Your task to perform on an android device: add a contact in the contacts app Image 0: 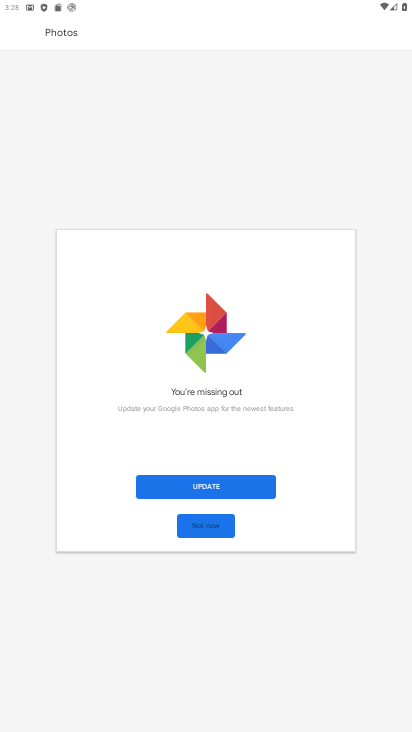
Step 0: press home button
Your task to perform on an android device: add a contact in the contacts app Image 1: 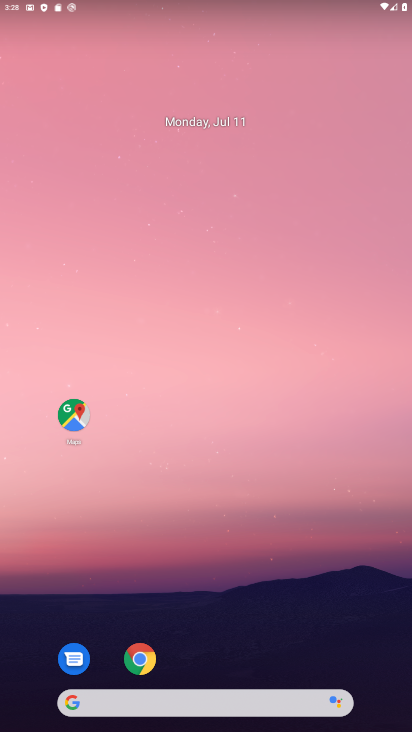
Step 1: drag from (209, 596) to (197, 60)
Your task to perform on an android device: add a contact in the contacts app Image 2: 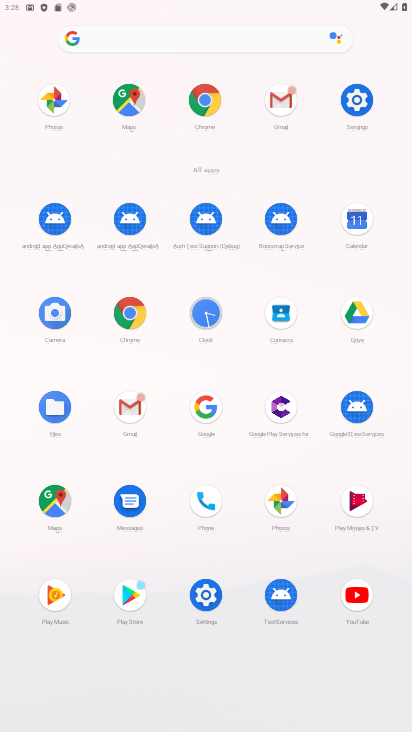
Step 2: click (275, 320)
Your task to perform on an android device: add a contact in the contacts app Image 3: 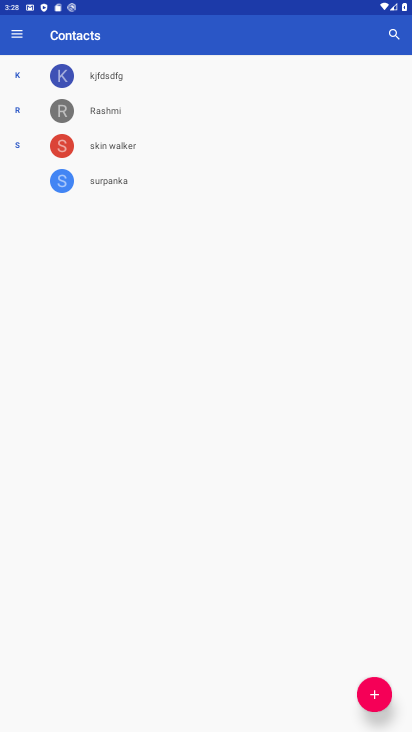
Step 3: click (370, 688)
Your task to perform on an android device: add a contact in the contacts app Image 4: 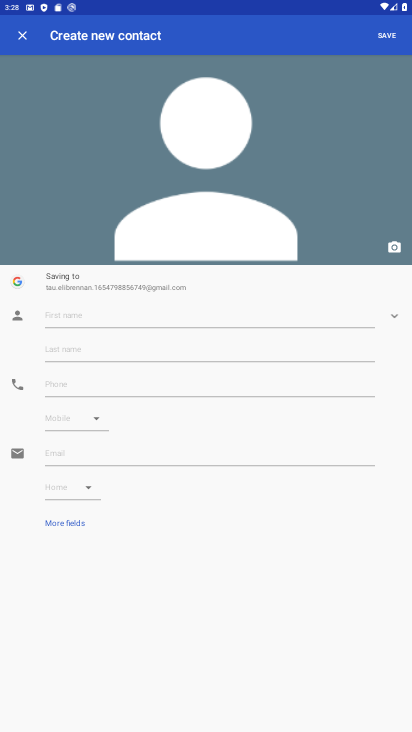
Step 4: click (185, 314)
Your task to perform on an android device: add a contact in the contacts app Image 5: 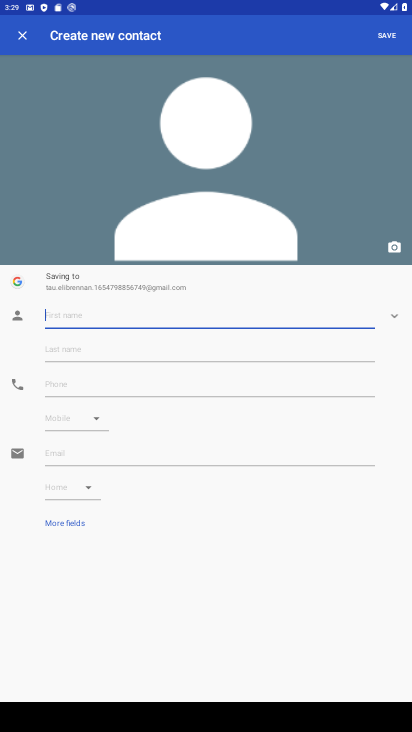
Step 5: type "Raghav"
Your task to perform on an android device: add a contact in the contacts app Image 6: 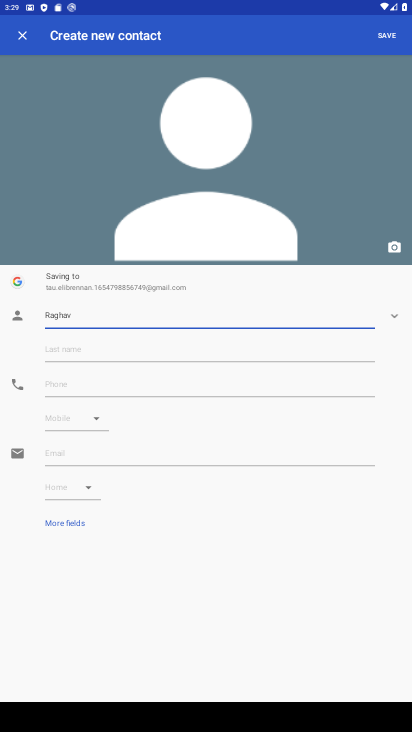
Step 6: click (116, 387)
Your task to perform on an android device: add a contact in the contacts app Image 7: 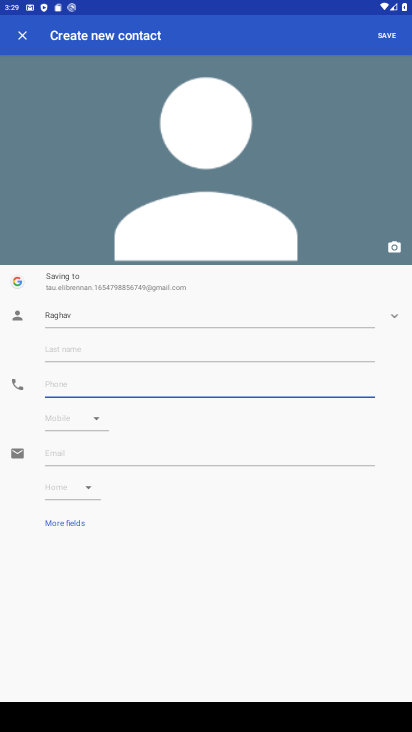
Step 7: type "9009900900"
Your task to perform on an android device: add a contact in the contacts app Image 8: 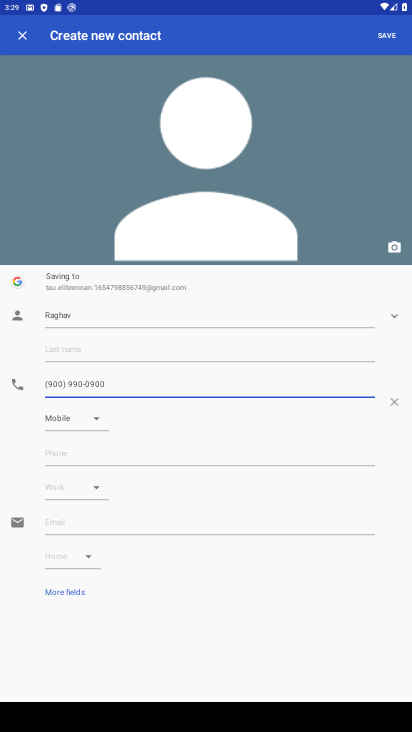
Step 8: click (396, 37)
Your task to perform on an android device: add a contact in the contacts app Image 9: 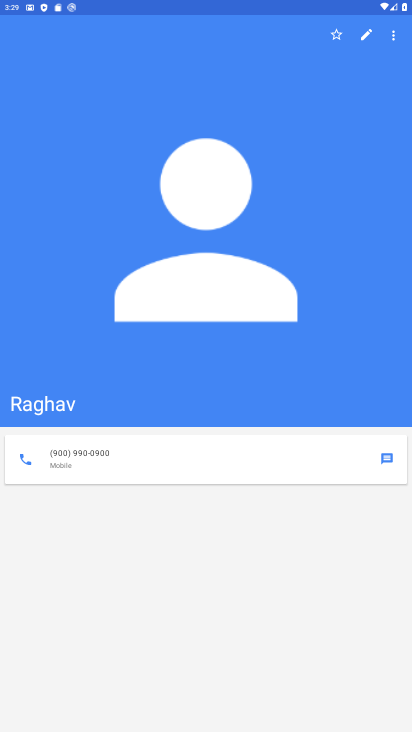
Step 9: task complete